Your task to perform on an android device: open chrome privacy settings Image 0: 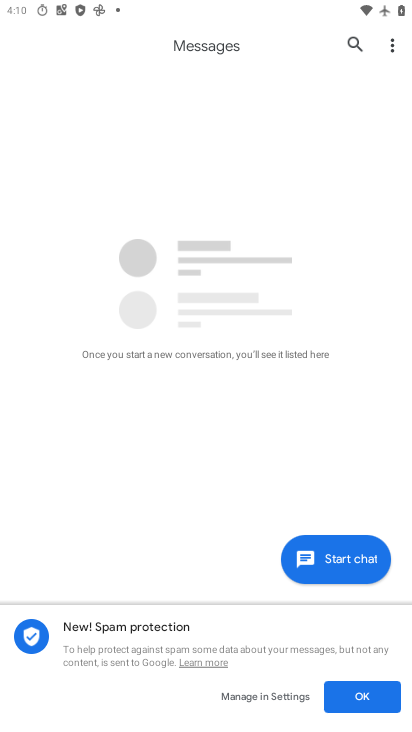
Step 0: press home button
Your task to perform on an android device: open chrome privacy settings Image 1: 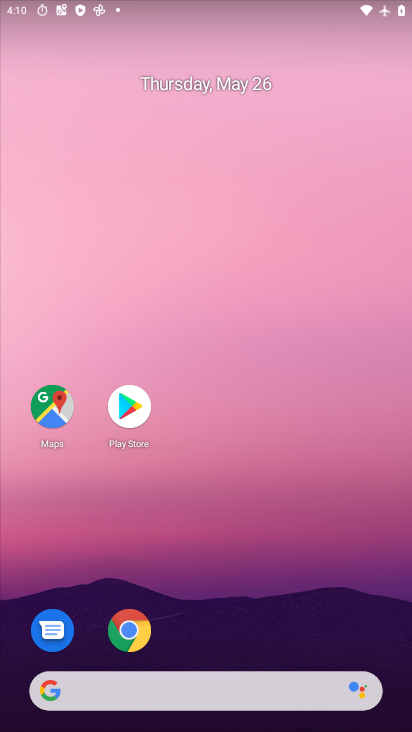
Step 1: click (135, 627)
Your task to perform on an android device: open chrome privacy settings Image 2: 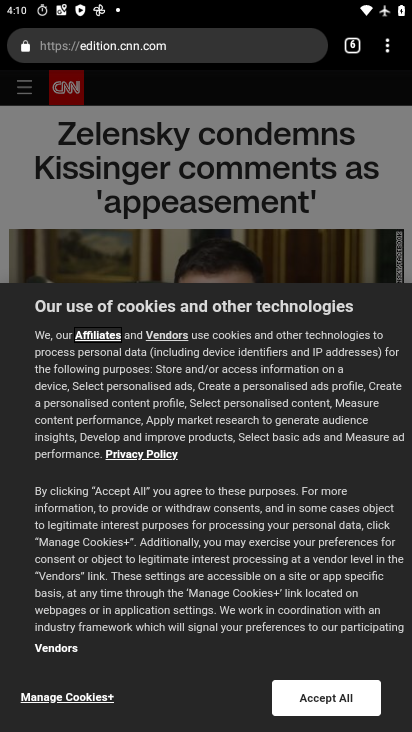
Step 2: click (391, 53)
Your task to perform on an android device: open chrome privacy settings Image 3: 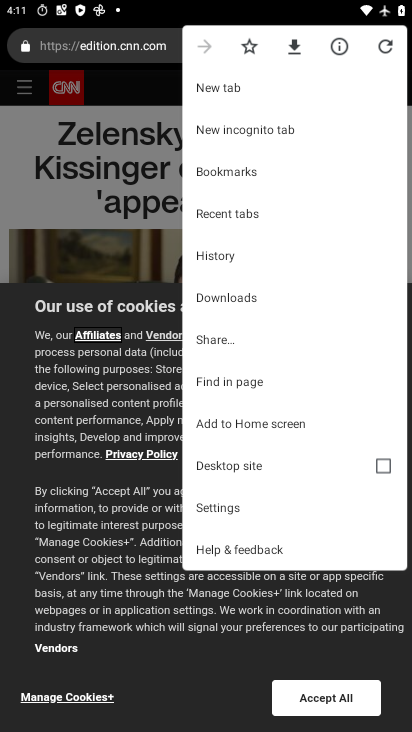
Step 3: click (229, 509)
Your task to perform on an android device: open chrome privacy settings Image 4: 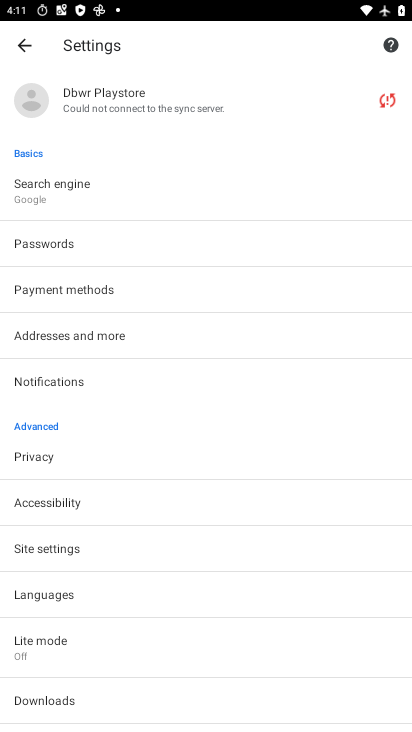
Step 4: click (62, 452)
Your task to perform on an android device: open chrome privacy settings Image 5: 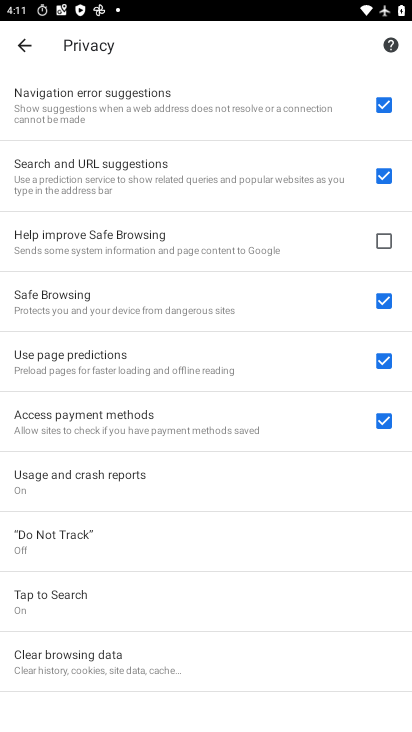
Step 5: task complete